Your task to perform on an android device: toggle sleep mode Image 0: 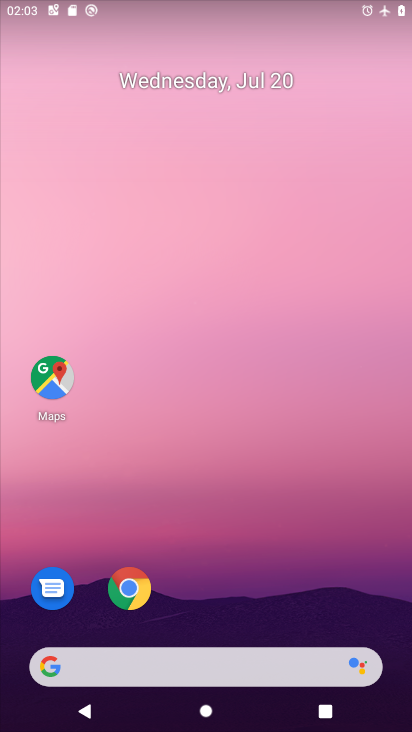
Step 0: drag from (214, 636) to (223, 340)
Your task to perform on an android device: toggle sleep mode Image 1: 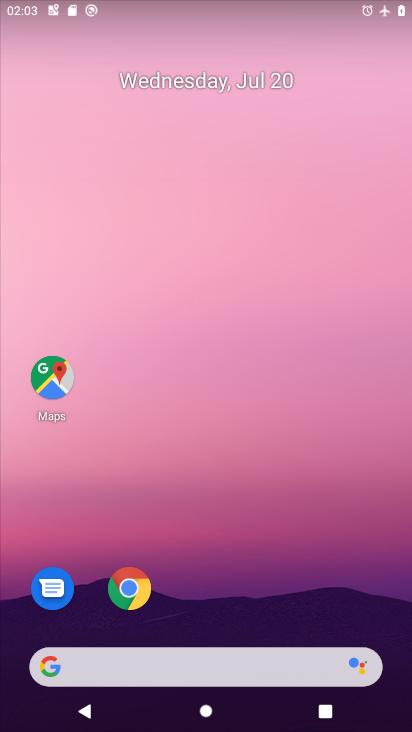
Step 1: drag from (239, 672) to (276, 439)
Your task to perform on an android device: toggle sleep mode Image 2: 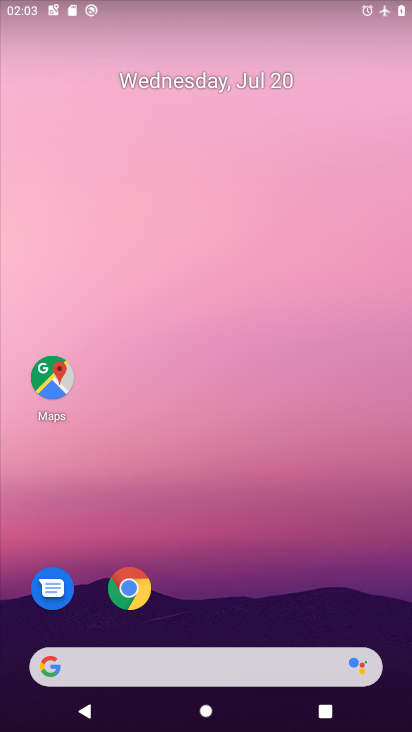
Step 2: drag from (223, 646) to (299, 177)
Your task to perform on an android device: toggle sleep mode Image 3: 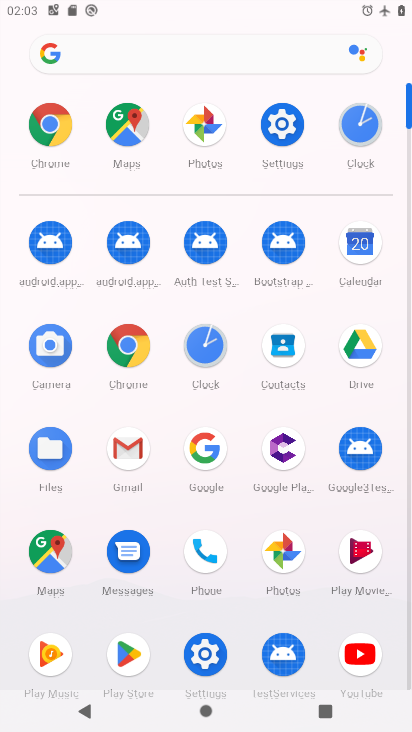
Step 3: click (284, 118)
Your task to perform on an android device: toggle sleep mode Image 4: 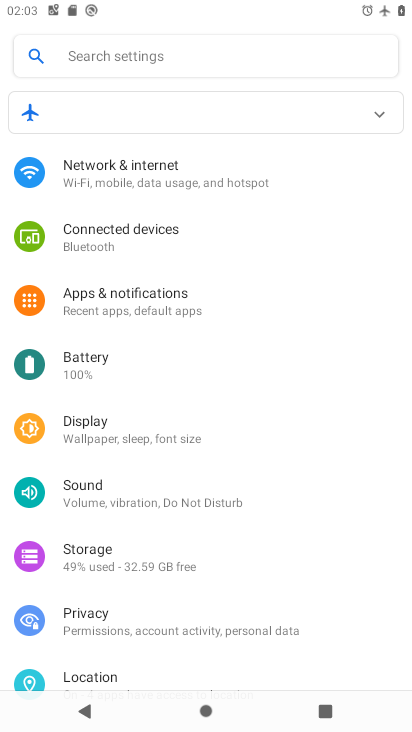
Step 4: task complete